Your task to perform on an android device: turn on data saver in the chrome app Image 0: 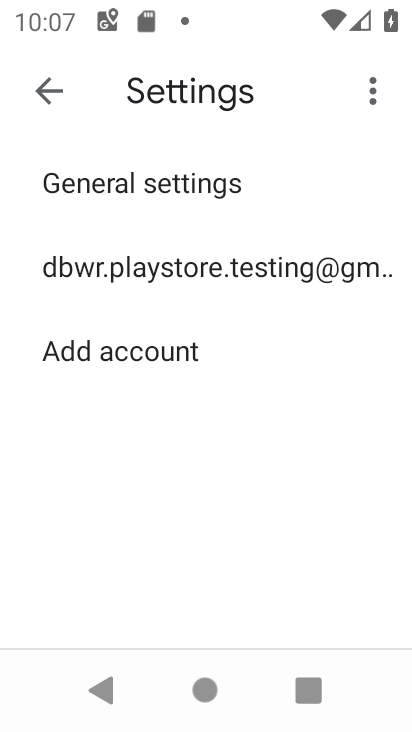
Step 0: press home button
Your task to perform on an android device: turn on data saver in the chrome app Image 1: 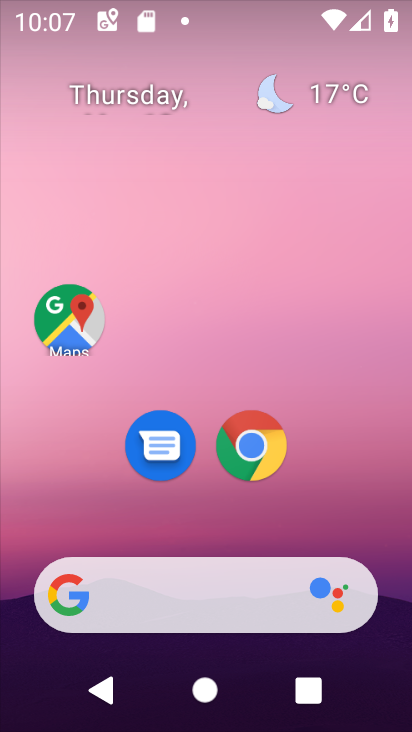
Step 1: drag from (246, 529) to (276, 191)
Your task to perform on an android device: turn on data saver in the chrome app Image 2: 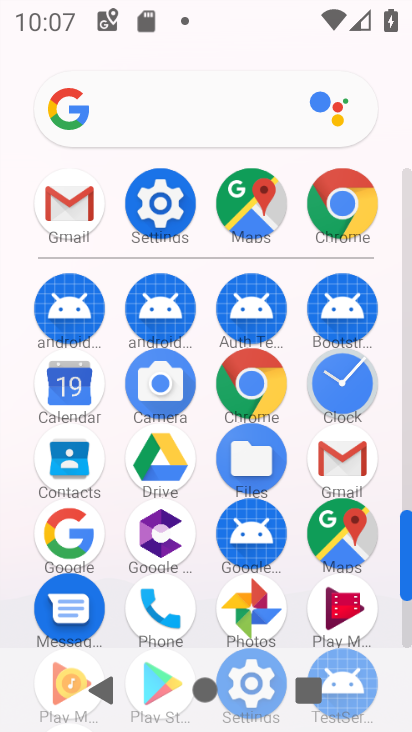
Step 2: click (346, 229)
Your task to perform on an android device: turn on data saver in the chrome app Image 3: 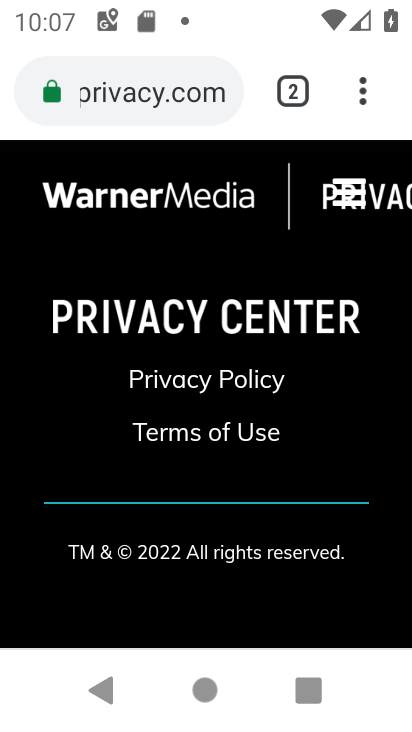
Step 3: click (363, 91)
Your task to perform on an android device: turn on data saver in the chrome app Image 4: 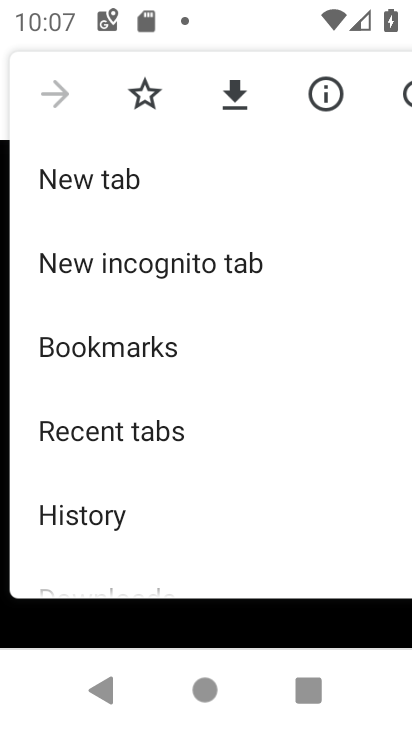
Step 4: drag from (182, 476) to (226, 160)
Your task to perform on an android device: turn on data saver in the chrome app Image 5: 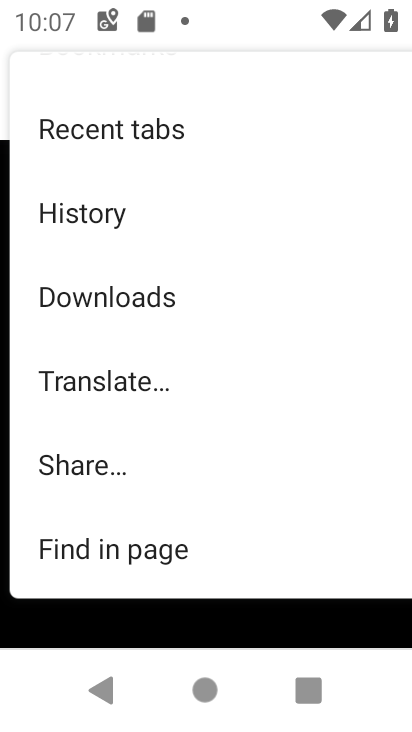
Step 5: drag from (182, 511) to (251, 184)
Your task to perform on an android device: turn on data saver in the chrome app Image 6: 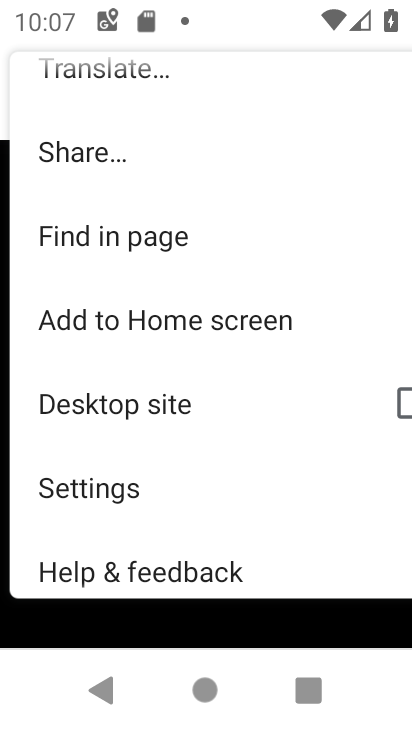
Step 6: click (165, 493)
Your task to perform on an android device: turn on data saver in the chrome app Image 7: 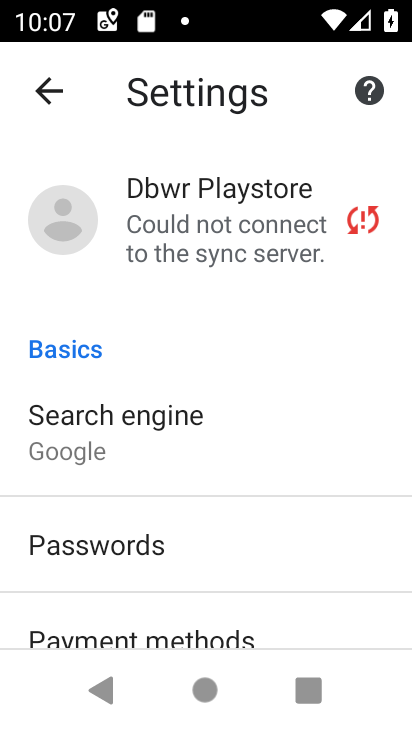
Step 7: drag from (76, 566) to (233, 248)
Your task to perform on an android device: turn on data saver in the chrome app Image 8: 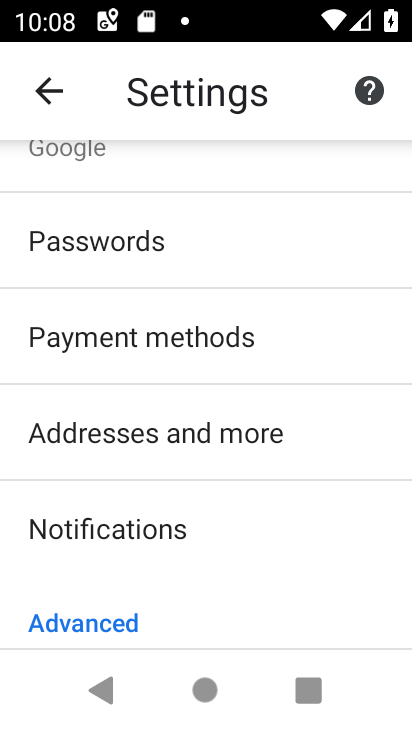
Step 8: drag from (229, 582) to (253, 273)
Your task to perform on an android device: turn on data saver in the chrome app Image 9: 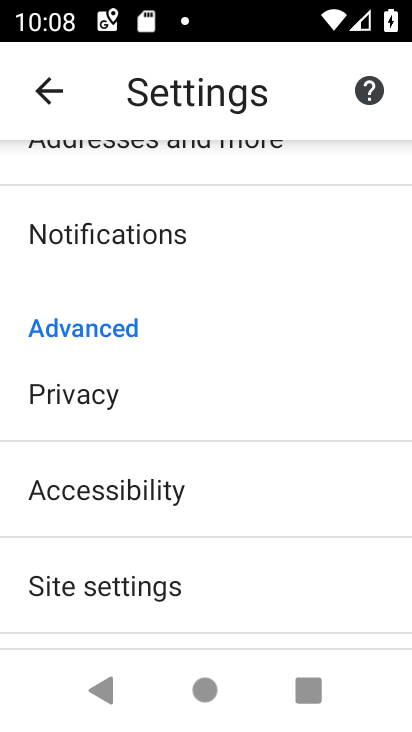
Step 9: drag from (230, 578) to (225, 347)
Your task to perform on an android device: turn on data saver in the chrome app Image 10: 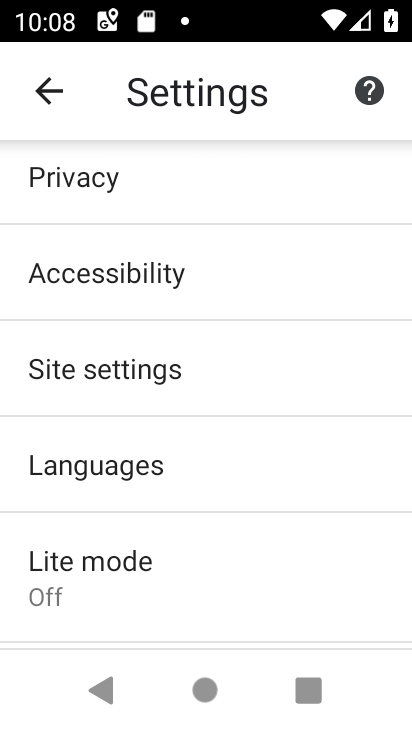
Step 10: click (203, 574)
Your task to perform on an android device: turn on data saver in the chrome app Image 11: 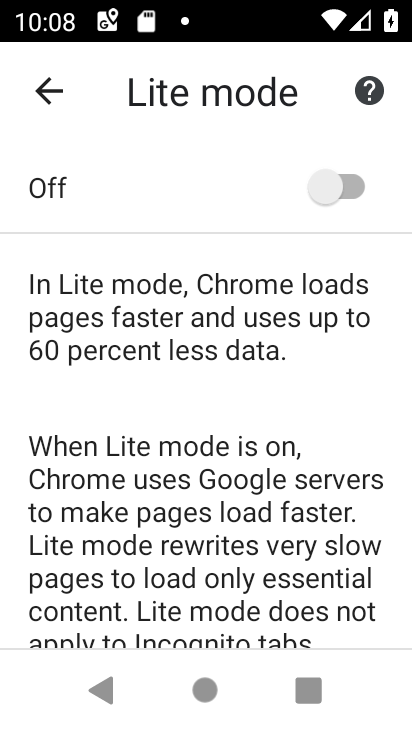
Step 11: click (360, 178)
Your task to perform on an android device: turn on data saver in the chrome app Image 12: 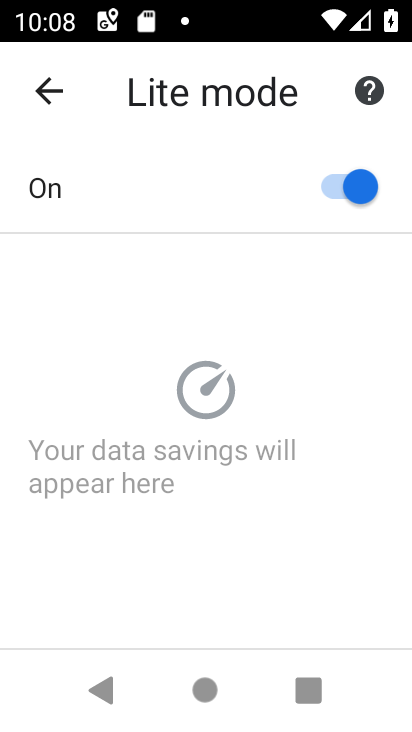
Step 12: task complete